Your task to perform on an android device: Open internet settings Image 0: 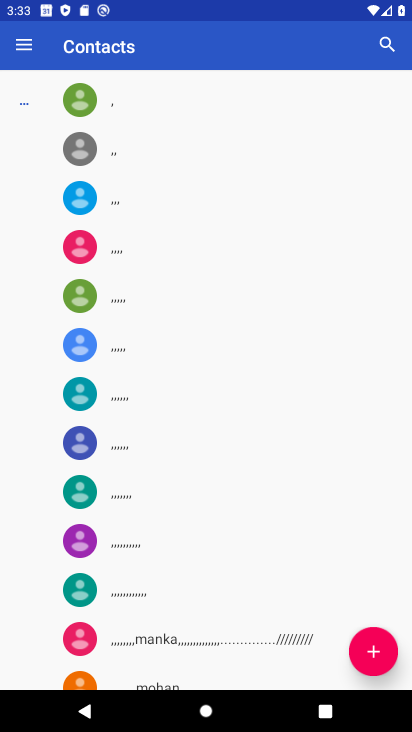
Step 0: press home button
Your task to perform on an android device: Open internet settings Image 1: 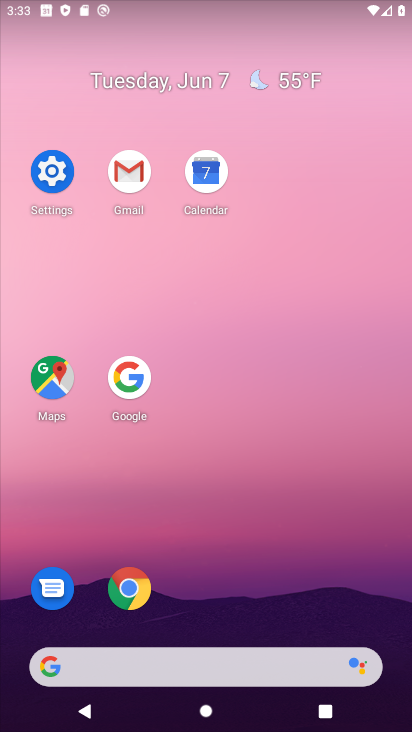
Step 1: click (55, 175)
Your task to perform on an android device: Open internet settings Image 2: 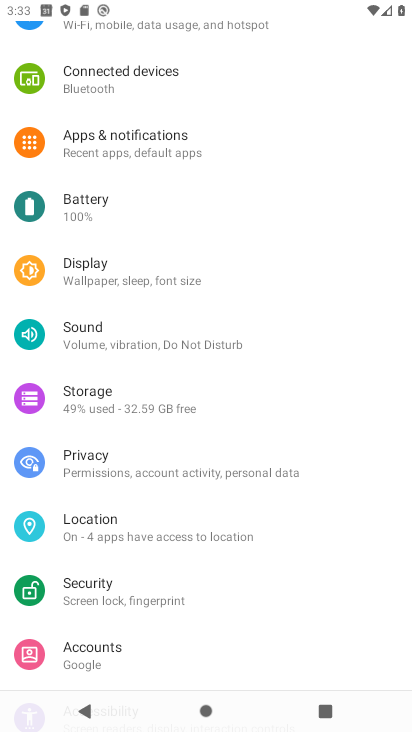
Step 2: drag from (230, 164) to (195, 472)
Your task to perform on an android device: Open internet settings Image 3: 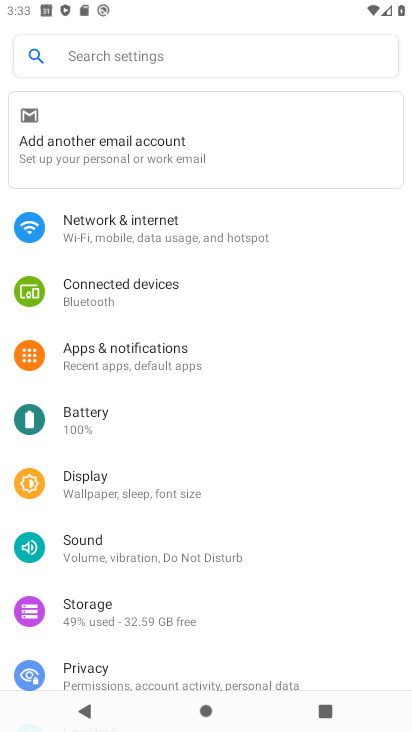
Step 3: click (247, 246)
Your task to perform on an android device: Open internet settings Image 4: 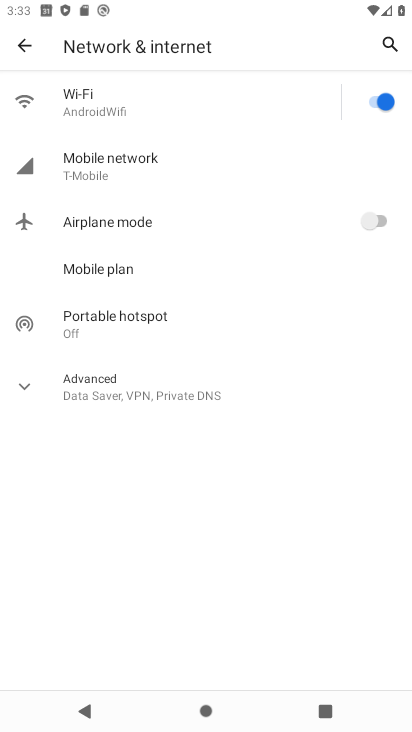
Step 4: task complete